Your task to perform on an android device: Open privacy settings Image 0: 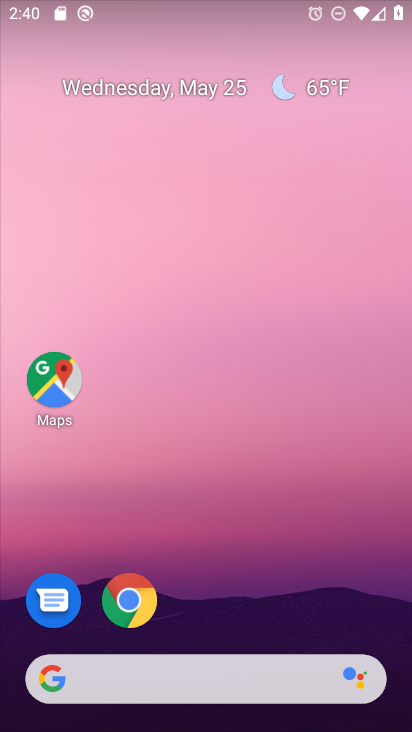
Step 0: drag from (220, 548) to (289, 79)
Your task to perform on an android device: Open privacy settings Image 1: 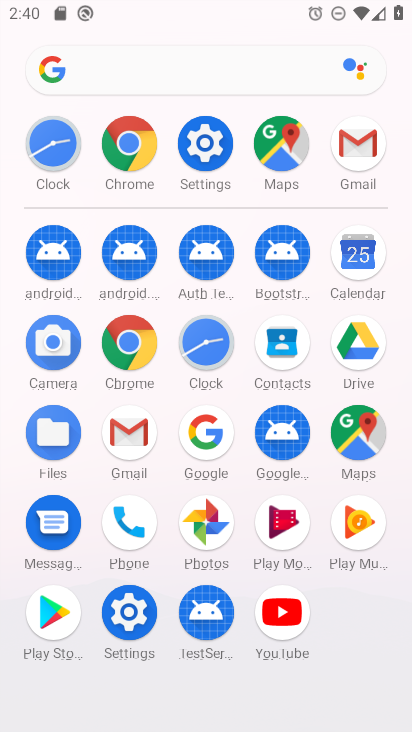
Step 1: click (199, 147)
Your task to perform on an android device: Open privacy settings Image 2: 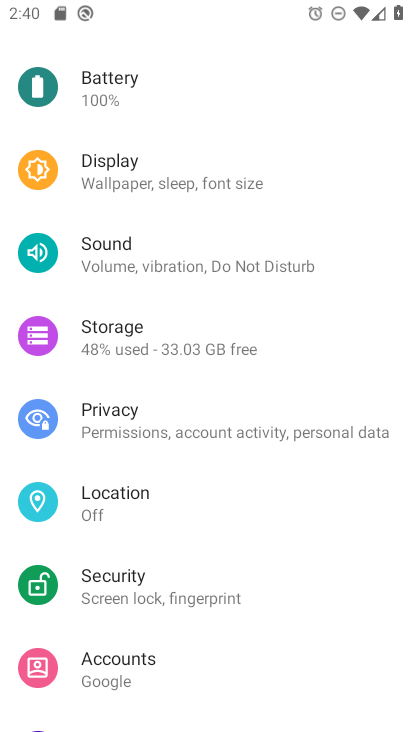
Step 2: click (206, 437)
Your task to perform on an android device: Open privacy settings Image 3: 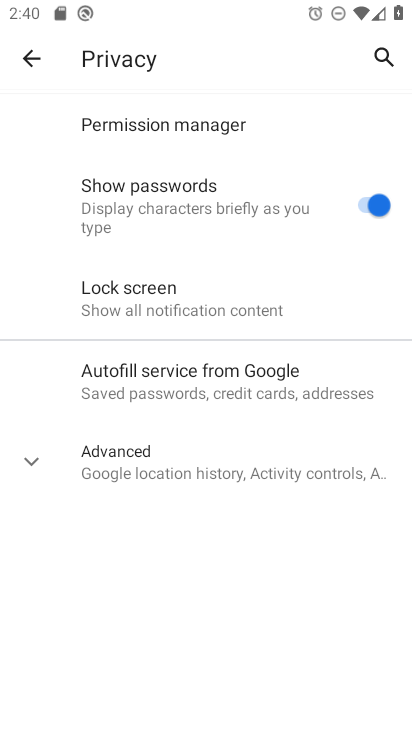
Step 3: task complete